Your task to perform on an android device: empty trash in google photos Image 0: 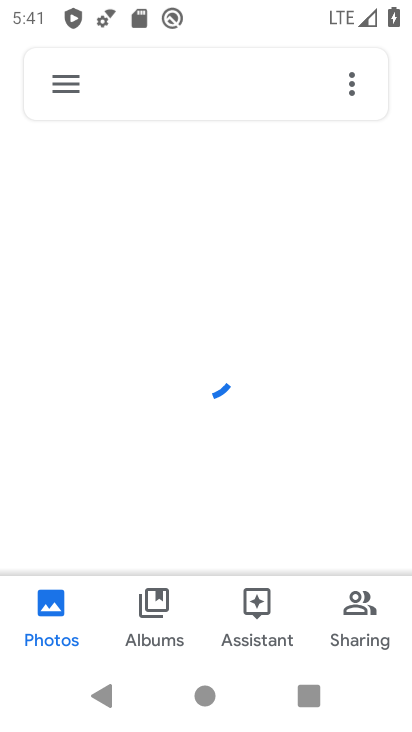
Step 0: press home button
Your task to perform on an android device: empty trash in google photos Image 1: 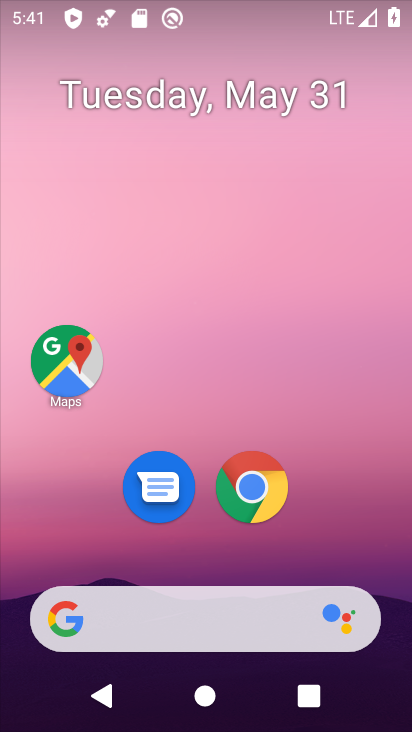
Step 1: drag from (334, 530) to (261, 93)
Your task to perform on an android device: empty trash in google photos Image 2: 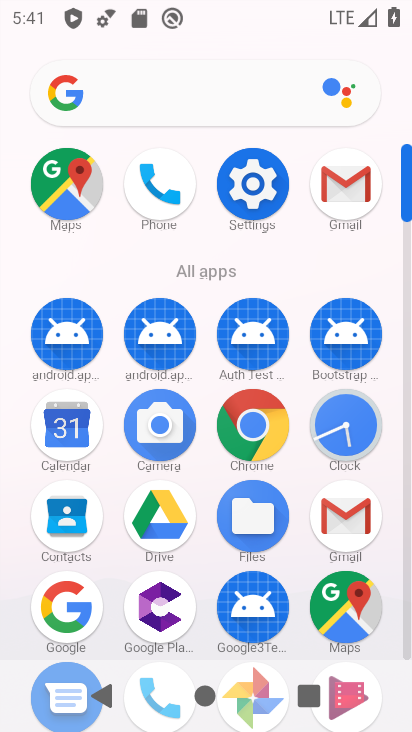
Step 2: drag from (197, 557) to (176, 272)
Your task to perform on an android device: empty trash in google photos Image 3: 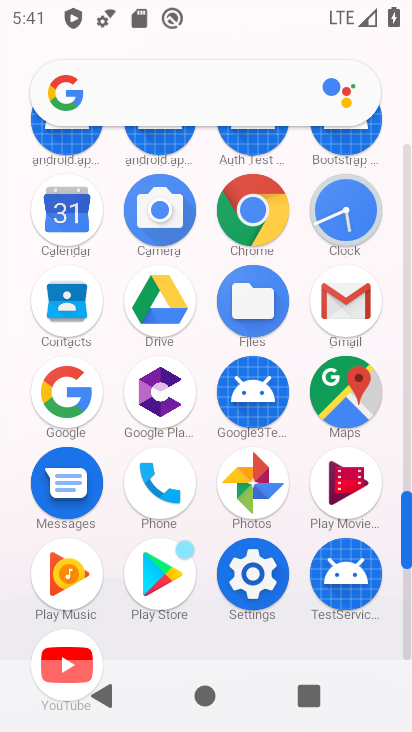
Step 3: click (259, 483)
Your task to perform on an android device: empty trash in google photos Image 4: 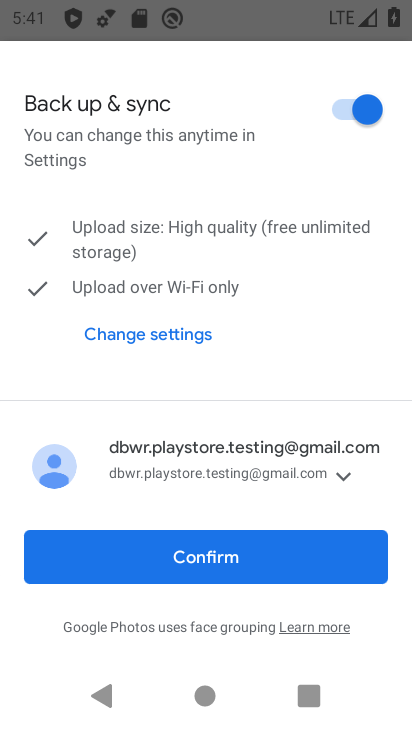
Step 4: click (250, 555)
Your task to perform on an android device: empty trash in google photos Image 5: 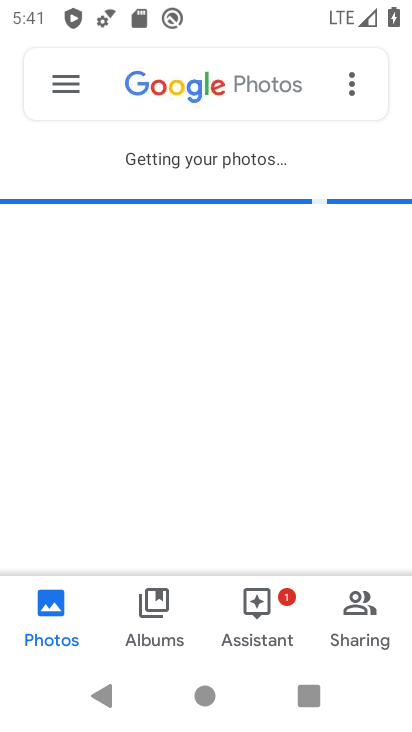
Step 5: click (250, 555)
Your task to perform on an android device: empty trash in google photos Image 6: 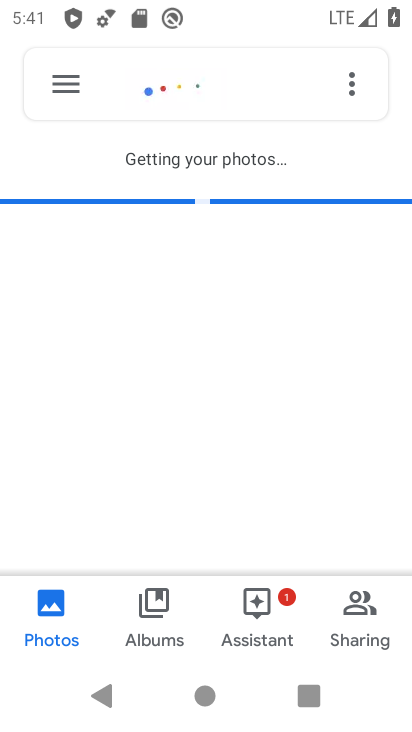
Step 6: click (59, 88)
Your task to perform on an android device: empty trash in google photos Image 7: 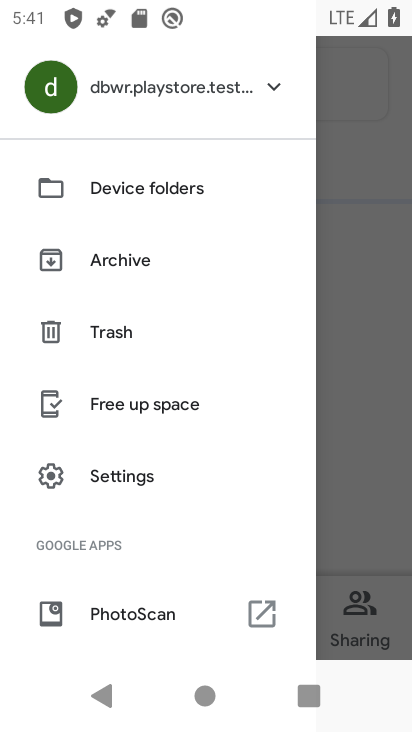
Step 7: click (115, 330)
Your task to perform on an android device: empty trash in google photos Image 8: 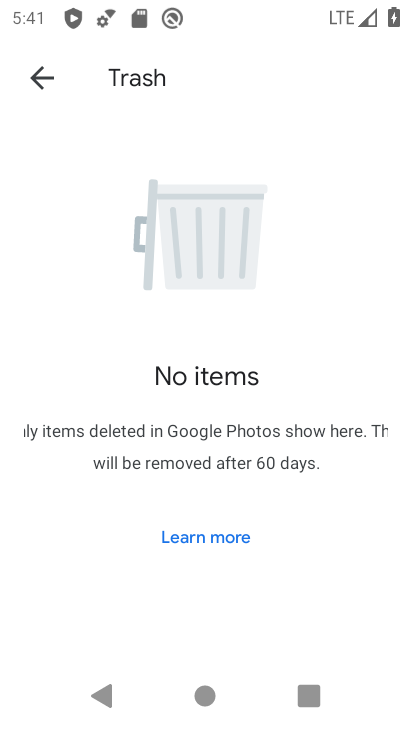
Step 8: task complete